Your task to perform on an android device: open app "Pluto TV - Live TV and Movies" Image 0: 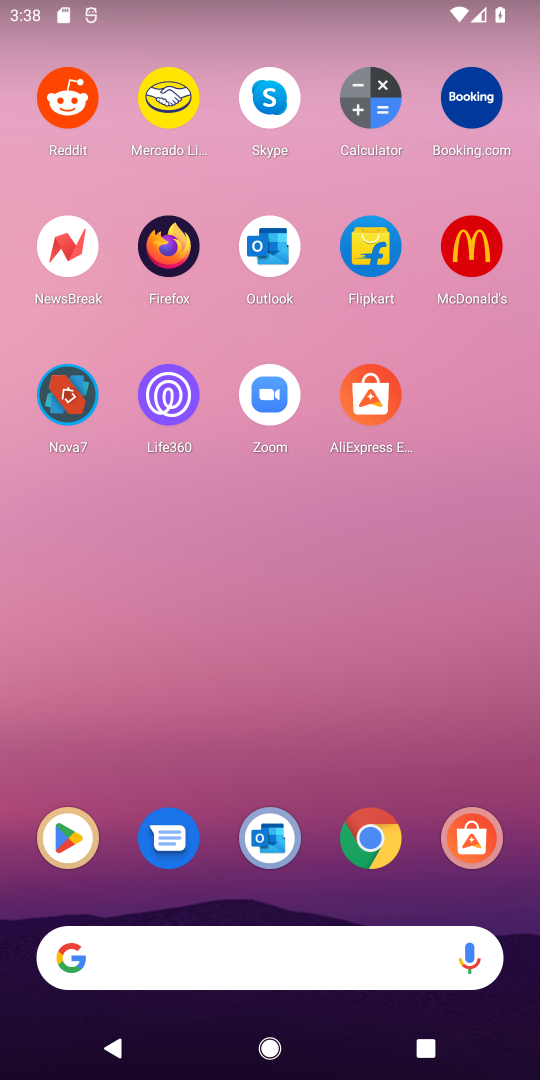
Step 0: click (44, 827)
Your task to perform on an android device: open app "Pluto TV - Live TV and Movies" Image 1: 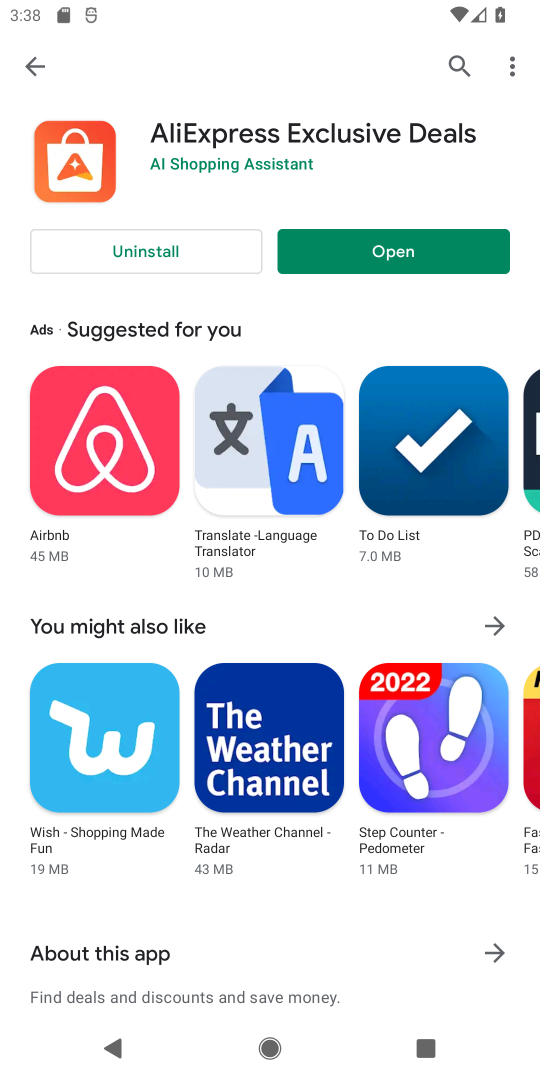
Step 1: click (464, 55)
Your task to perform on an android device: open app "Pluto TV - Live TV and Movies" Image 2: 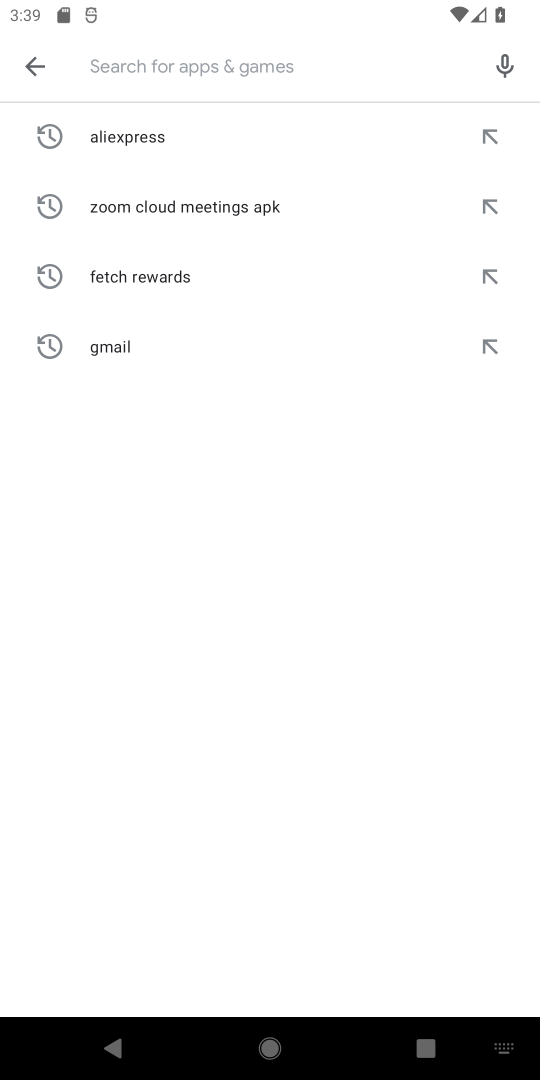
Step 2: type "Pluto TV - Live TV and Movie"
Your task to perform on an android device: open app "Pluto TV - Live TV and Movies" Image 3: 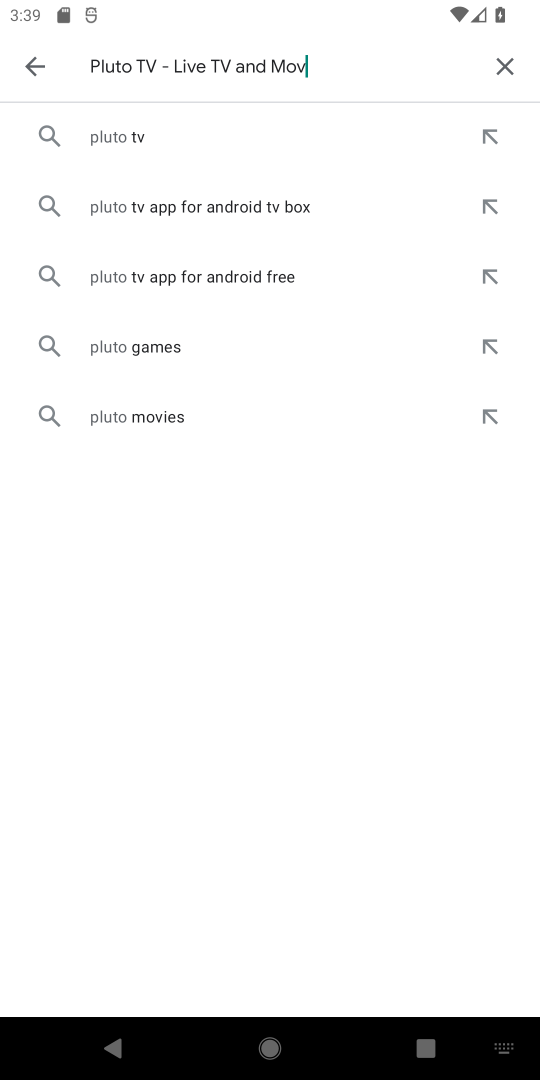
Step 3: type ""
Your task to perform on an android device: open app "Pluto TV - Live TV and Movies" Image 4: 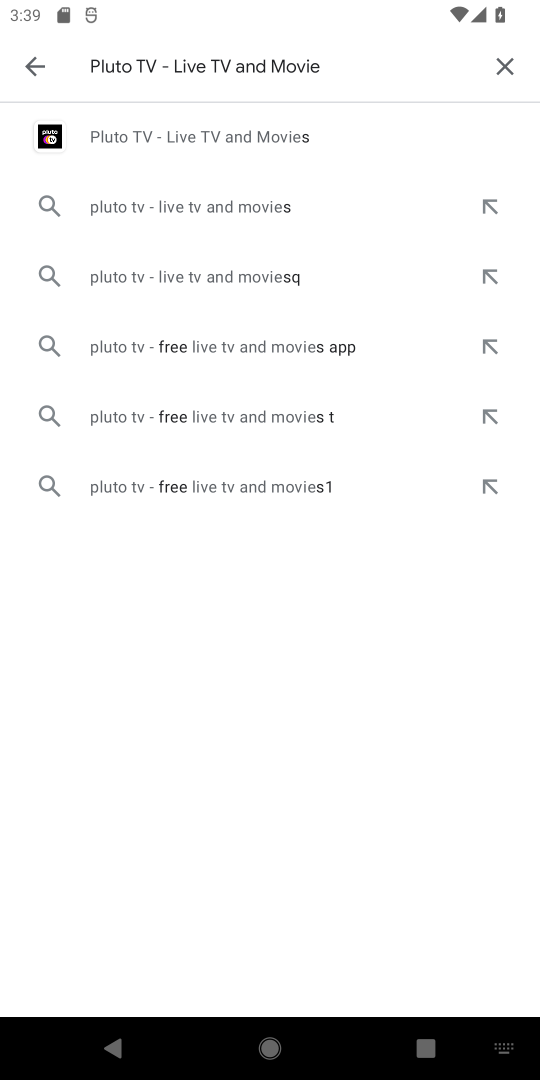
Step 4: click (341, 132)
Your task to perform on an android device: open app "Pluto TV - Live TV and Movies" Image 5: 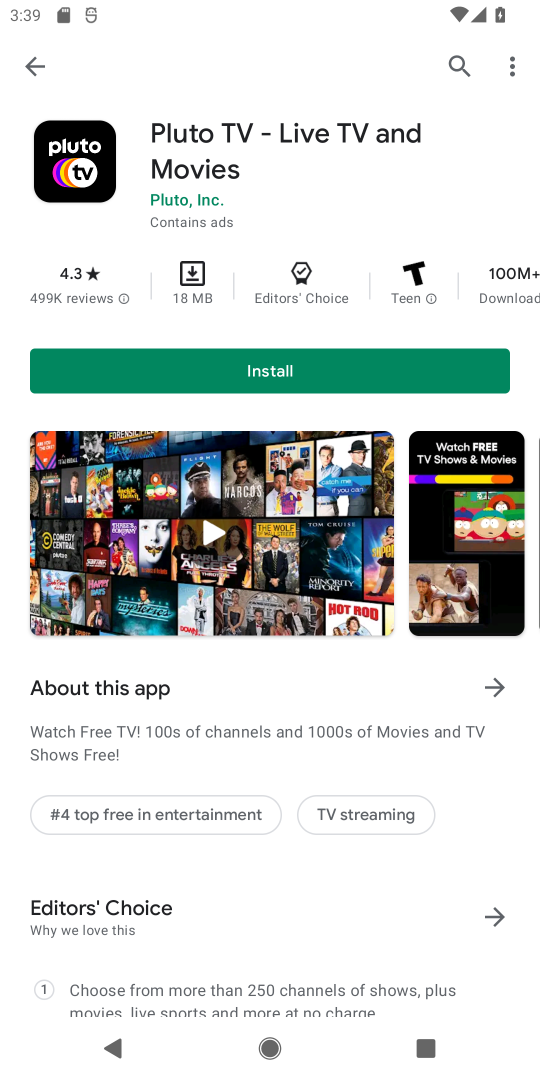
Step 5: task complete